Your task to perform on an android device: change the clock display to analog Image 0: 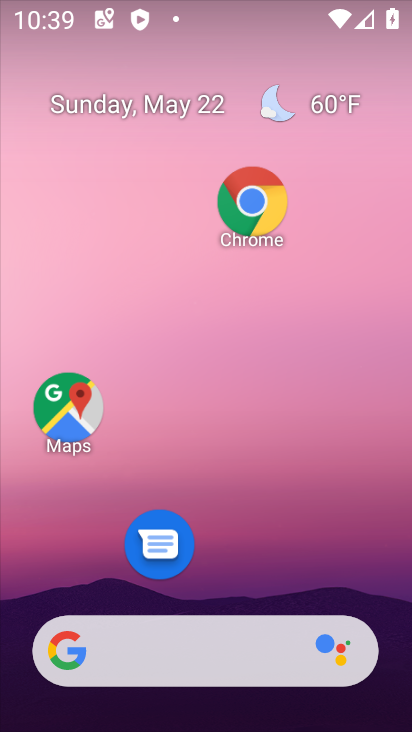
Step 0: drag from (290, 549) to (290, 36)
Your task to perform on an android device: change the clock display to analog Image 1: 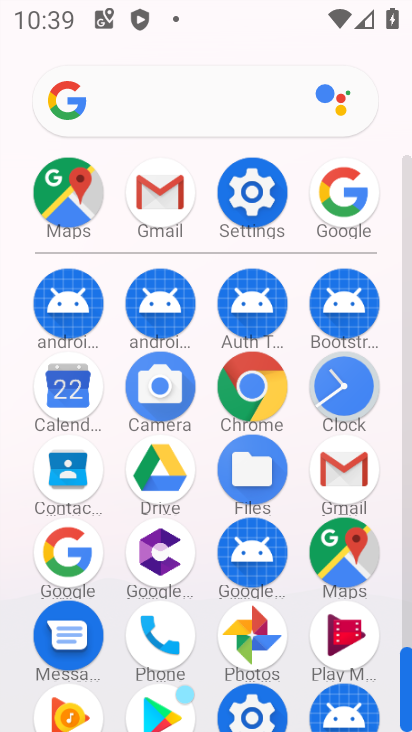
Step 1: click (329, 399)
Your task to perform on an android device: change the clock display to analog Image 2: 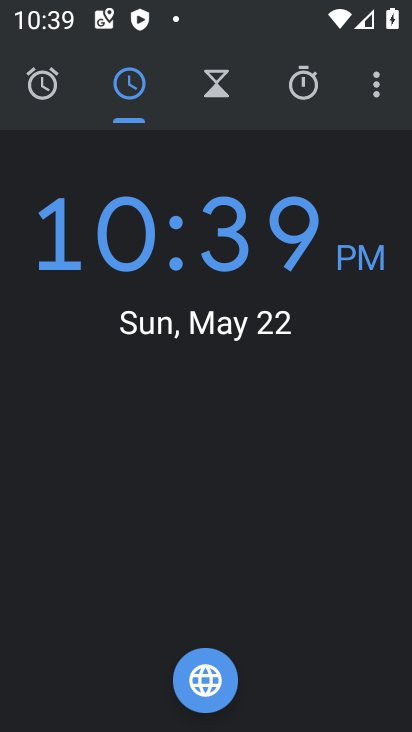
Step 2: click (367, 81)
Your task to perform on an android device: change the clock display to analog Image 3: 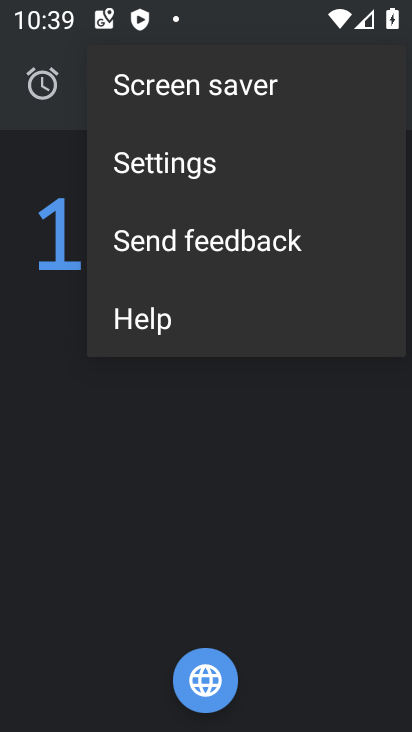
Step 3: click (187, 160)
Your task to perform on an android device: change the clock display to analog Image 4: 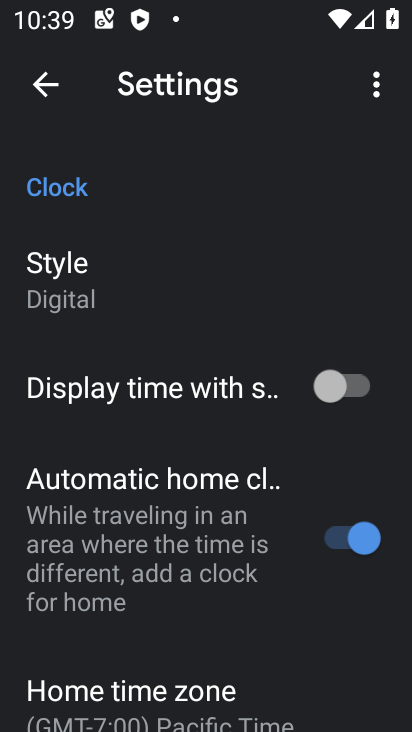
Step 4: click (115, 273)
Your task to perform on an android device: change the clock display to analog Image 5: 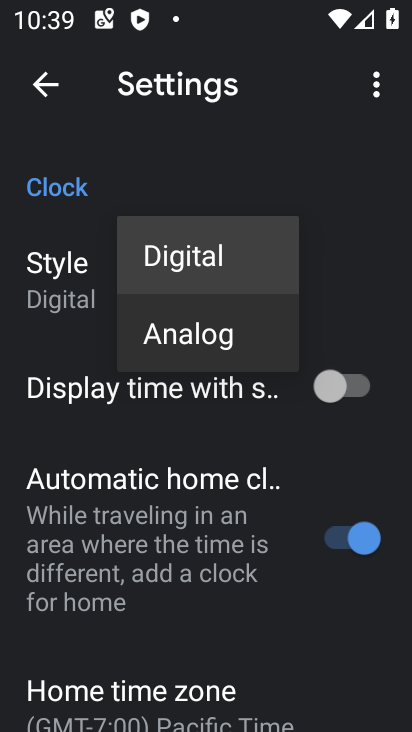
Step 5: click (154, 336)
Your task to perform on an android device: change the clock display to analog Image 6: 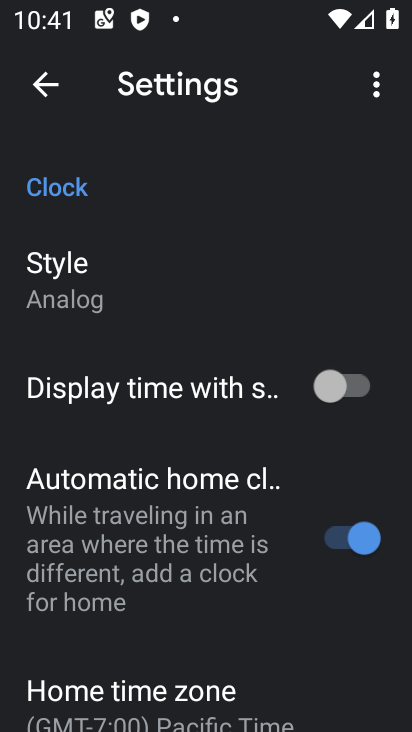
Step 6: task complete